Your task to perform on an android device: open device folders in google photos Image 0: 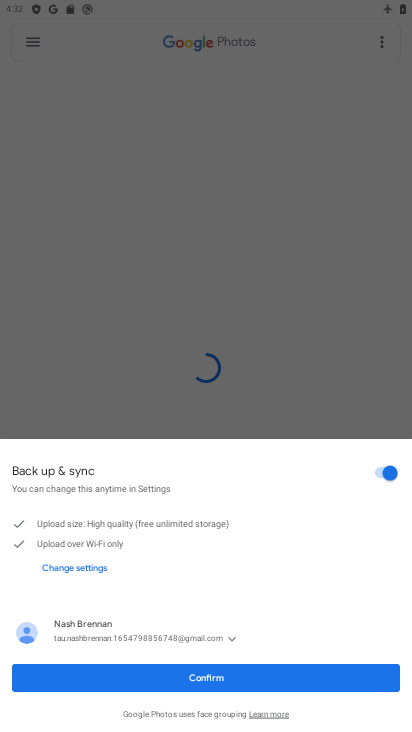
Step 0: press home button
Your task to perform on an android device: open device folders in google photos Image 1: 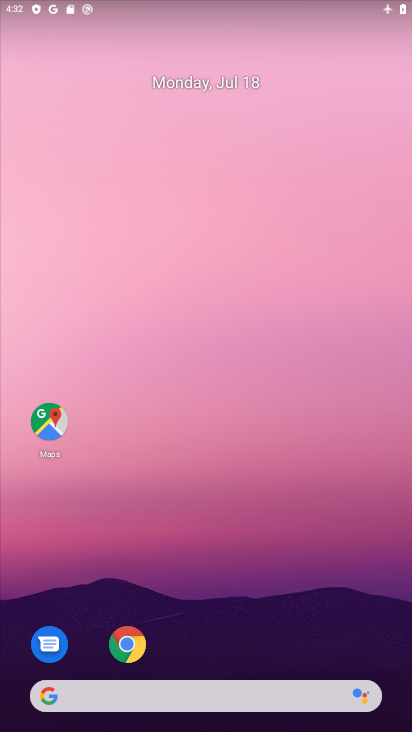
Step 1: drag from (240, 645) to (268, 137)
Your task to perform on an android device: open device folders in google photos Image 2: 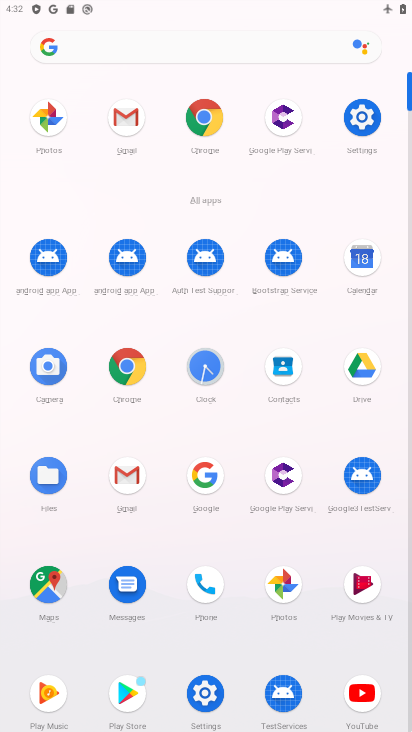
Step 2: click (42, 114)
Your task to perform on an android device: open device folders in google photos Image 3: 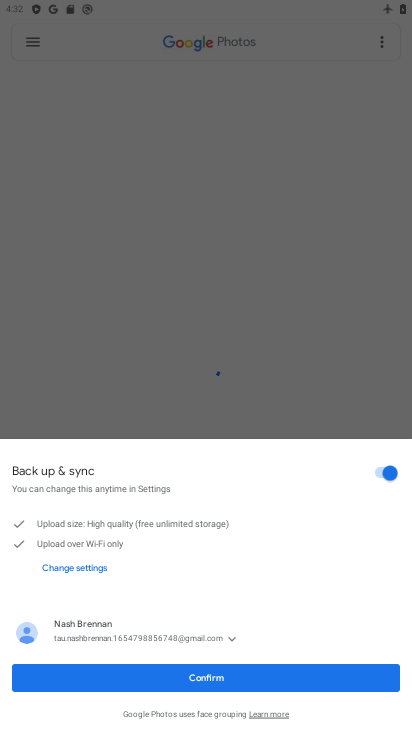
Step 3: click (227, 673)
Your task to perform on an android device: open device folders in google photos Image 4: 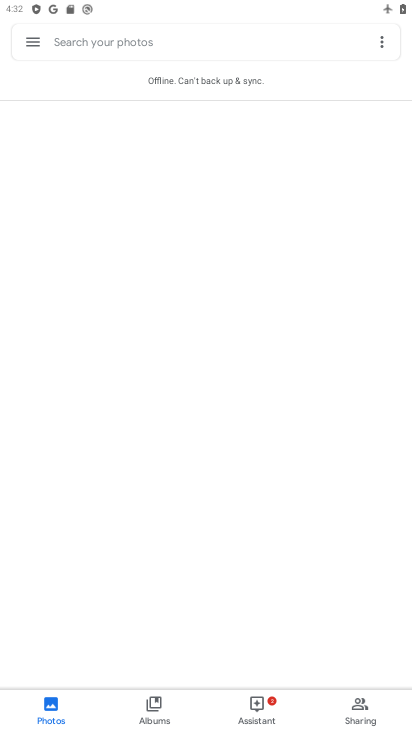
Step 4: click (26, 41)
Your task to perform on an android device: open device folders in google photos Image 5: 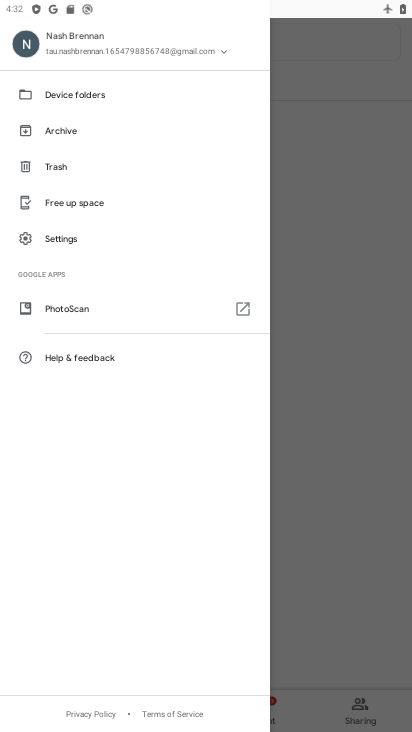
Step 5: click (77, 94)
Your task to perform on an android device: open device folders in google photos Image 6: 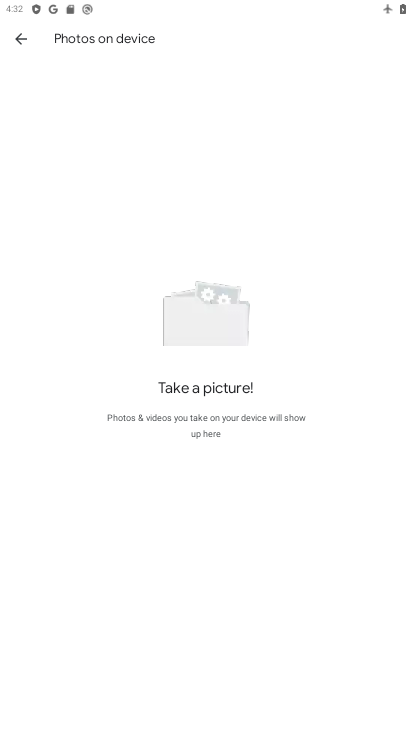
Step 6: task complete